Your task to perform on an android device: Set the phone to "Do not disturb". Image 0: 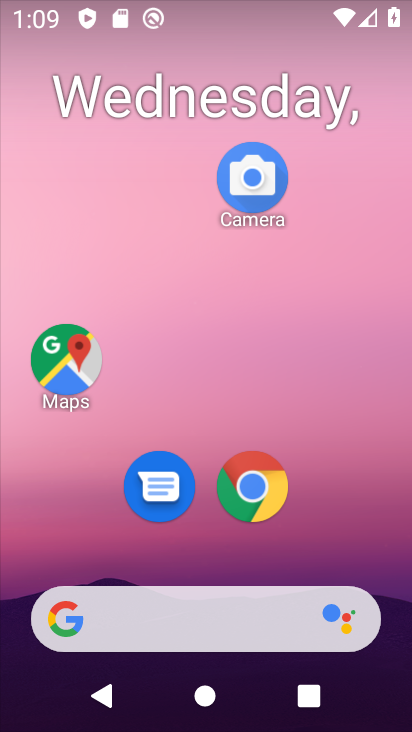
Step 0: drag from (253, 659) to (306, 237)
Your task to perform on an android device: Set the phone to "Do not disturb". Image 1: 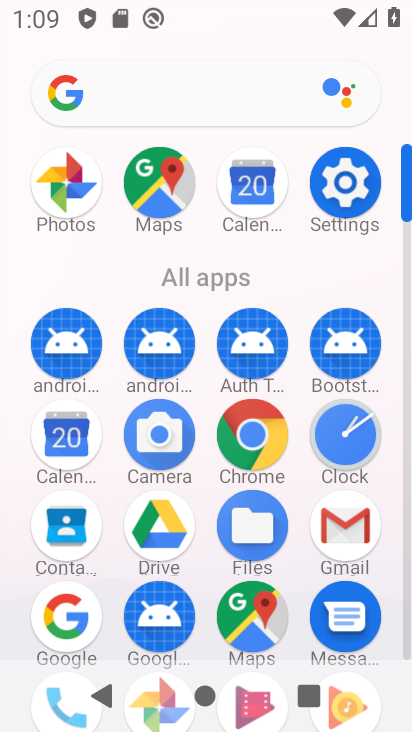
Step 1: click (331, 174)
Your task to perform on an android device: Set the phone to "Do not disturb". Image 2: 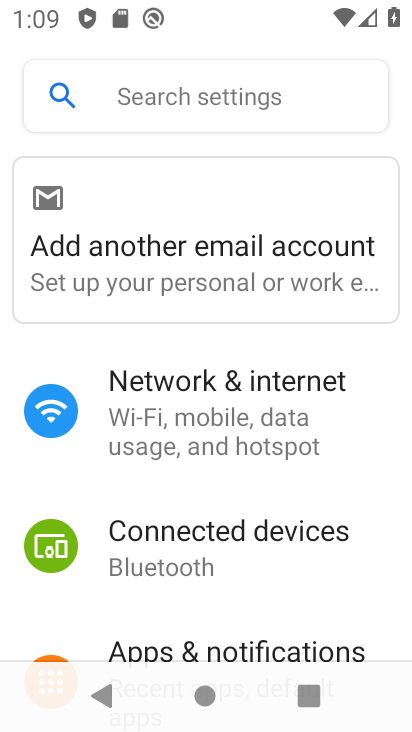
Step 2: click (167, 107)
Your task to perform on an android device: Set the phone to "Do not disturb". Image 3: 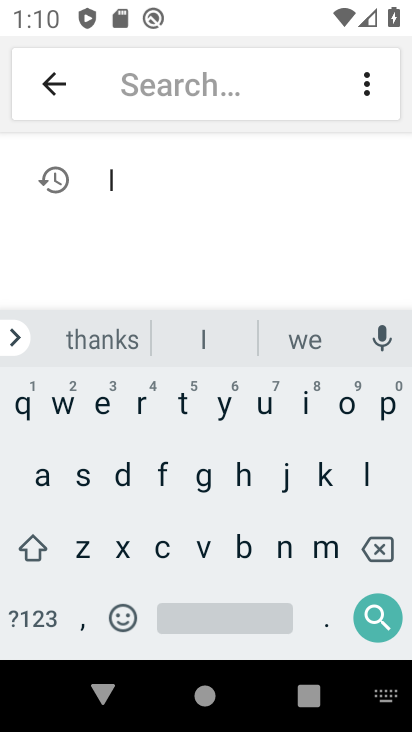
Step 3: click (124, 475)
Your task to perform on an android device: Set the phone to "Do not disturb". Image 4: 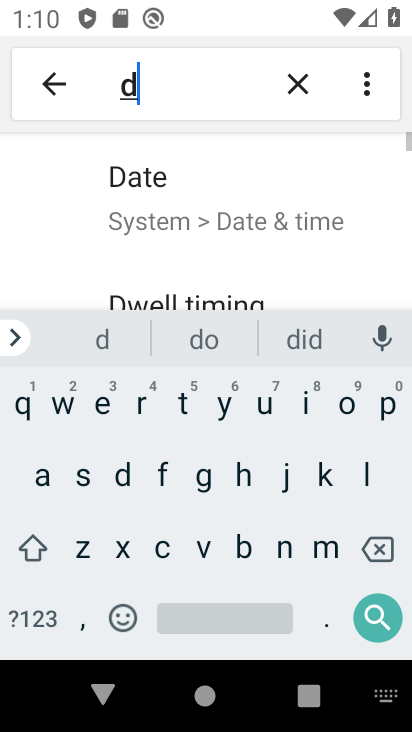
Step 4: click (285, 546)
Your task to perform on an android device: Set the phone to "Do not disturb". Image 5: 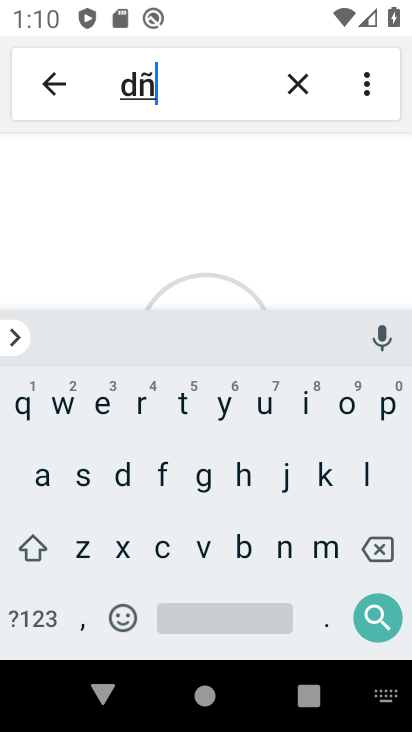
Step 5: click (376, 546)
Your task to perform on an android device: Set the phone to "Do not disturb". Image 6: 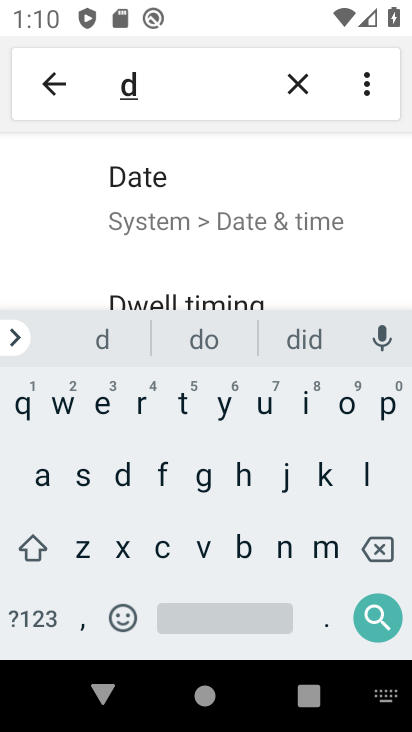
Step 6: click (273, 554)
Your task to perform on an android device: Set the phone to "Do not disturb". Image 7: 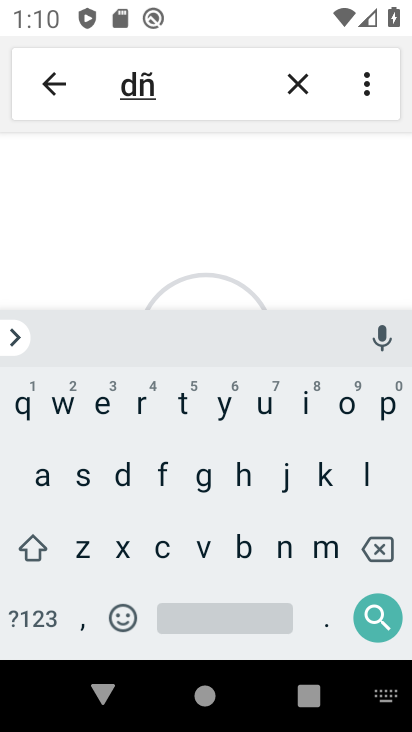
Step 7: click (370, 537)
Your task to perform on an android device: Set the phone to "Do not disturb". Image 8: 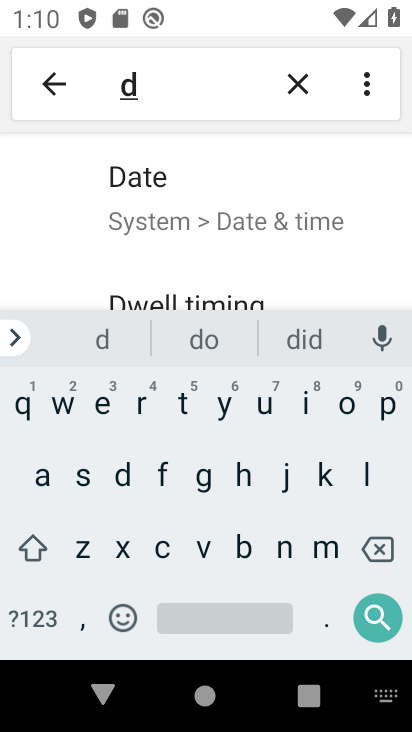
Step 8: click (280, 544)
Your task to perform on an android device: Set the phone to "Do not disturb". Image 9: 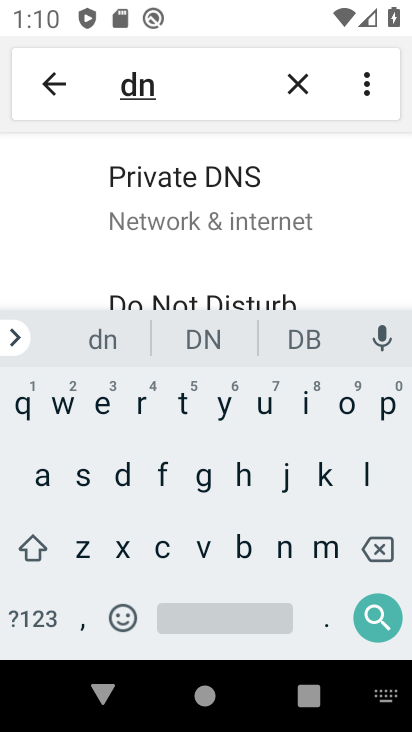
Step 9: click (121, 476)
Your task to perform on an android device: Set the phone to "Do not disturb". Image 10: 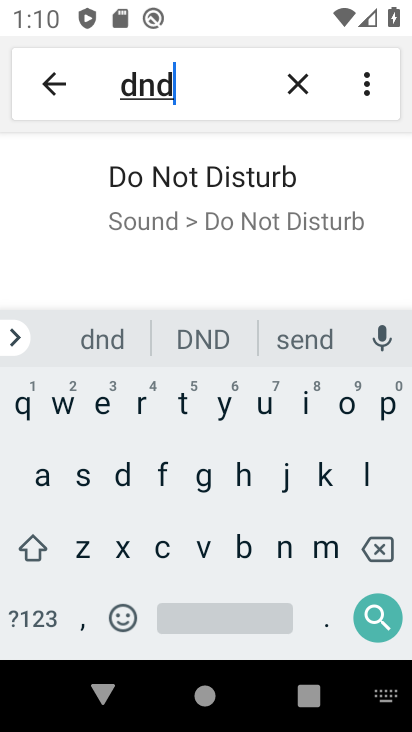
Step 10: click (210, 187)
Your task to perform on an android device: Set the phone to "Do not disturb". Image 11: 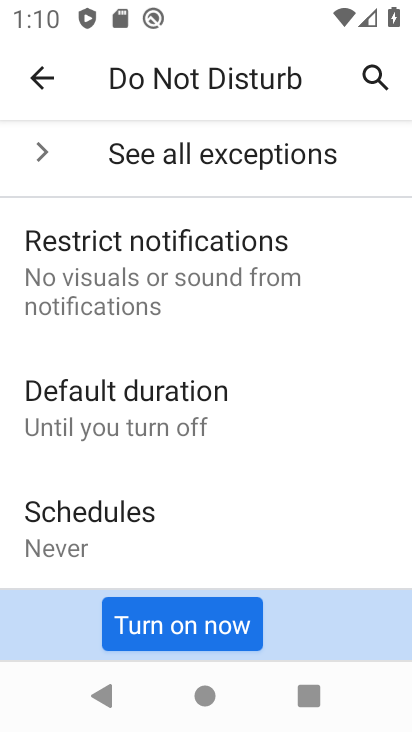
Step 11: click (169, 637)
Your task to perform on an android device: Set the phone to "Do not disturb". Image 12: 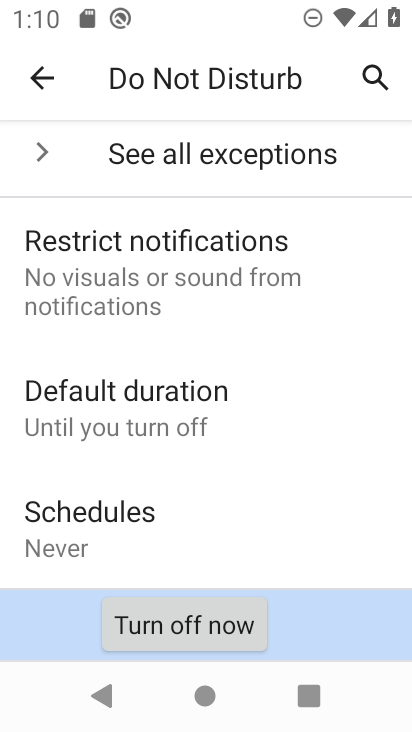
Step 12: task complete